Your task to perform on an android device: Open Chrome and go to the settings page Image 0: 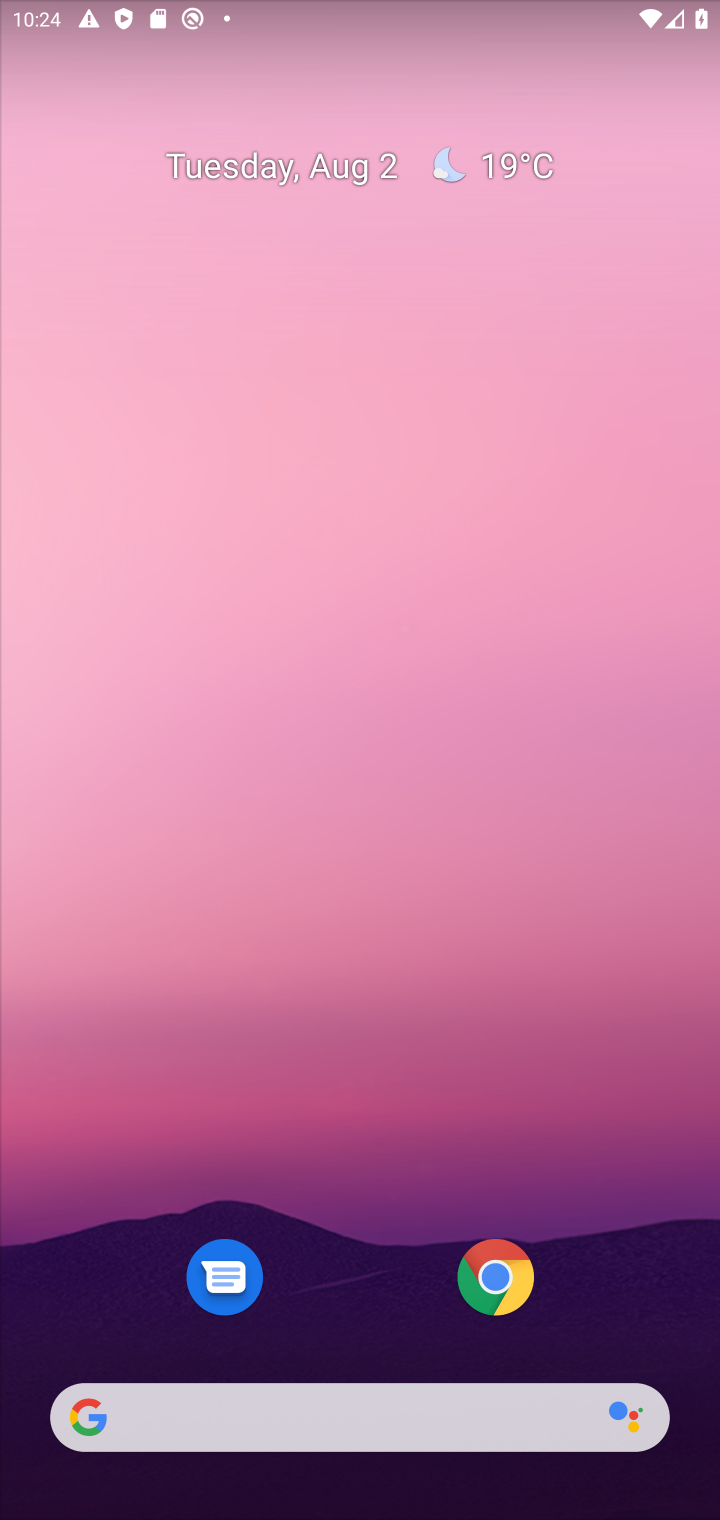
Step 0: click (485, 1296)
Your task to perform on an android device: Open Chrome and go to the settings page Image 1: 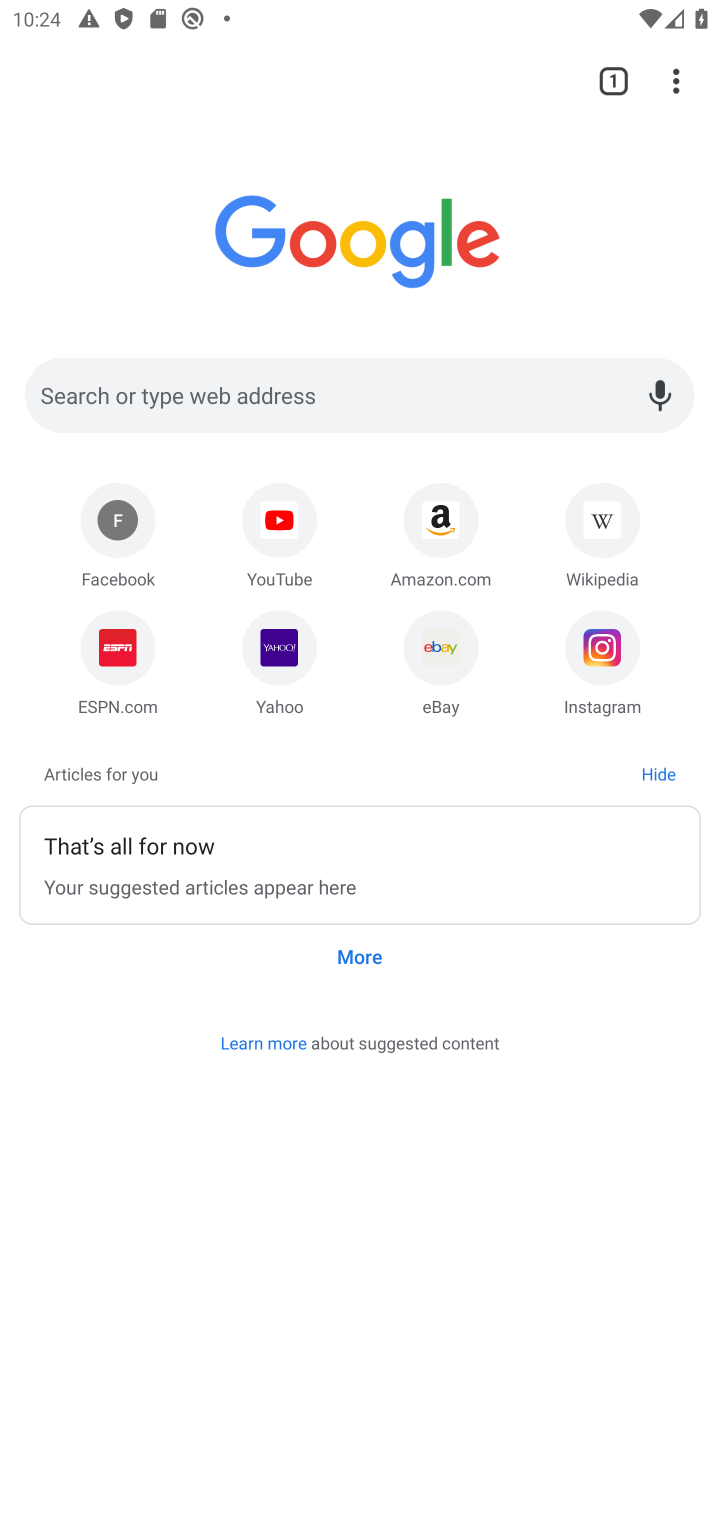
Step 1: click (674, 78)
Your task to perform on an android device: Open Chrome and go to the settings page Image 2: 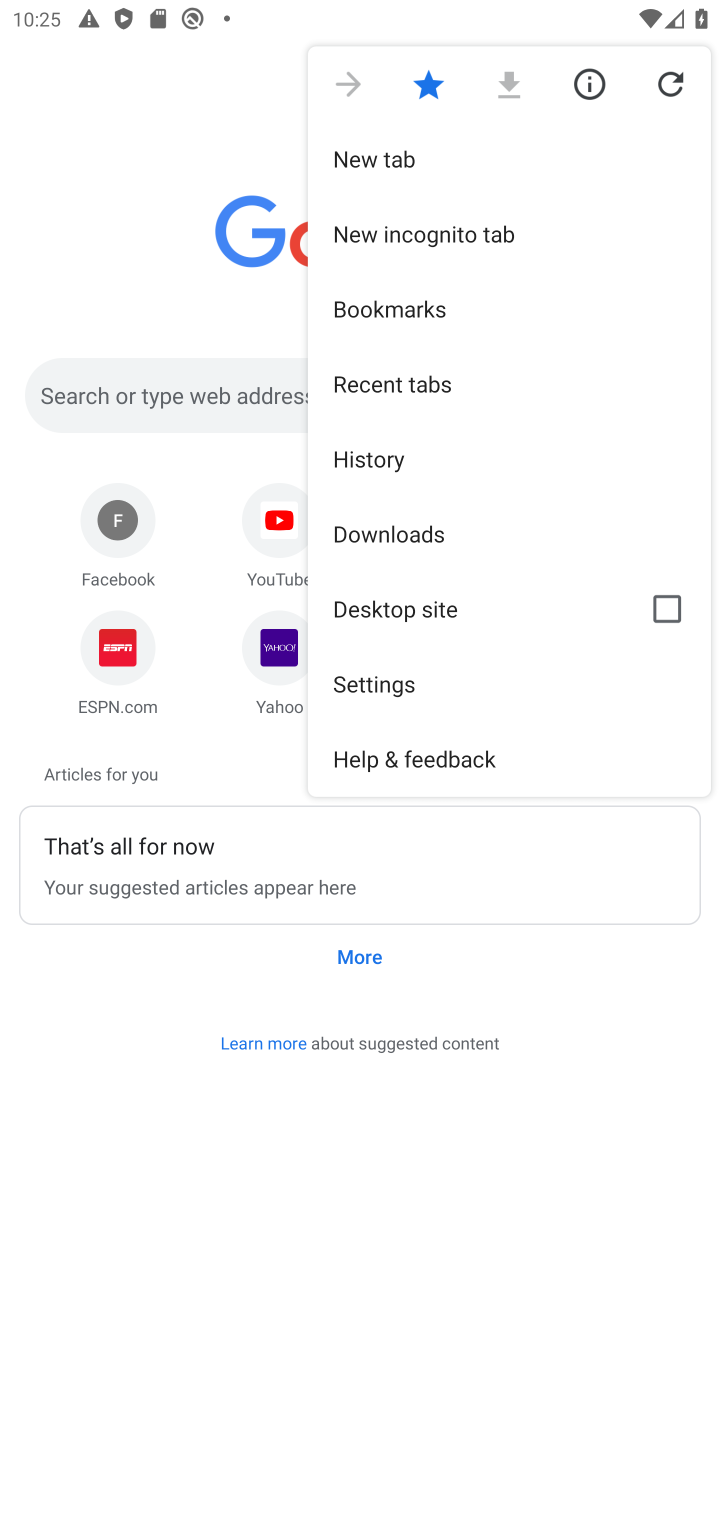
Step 2: click (379, 682)
Your task to perform on an android device: Open Chrome and go to the settings page Image 3: 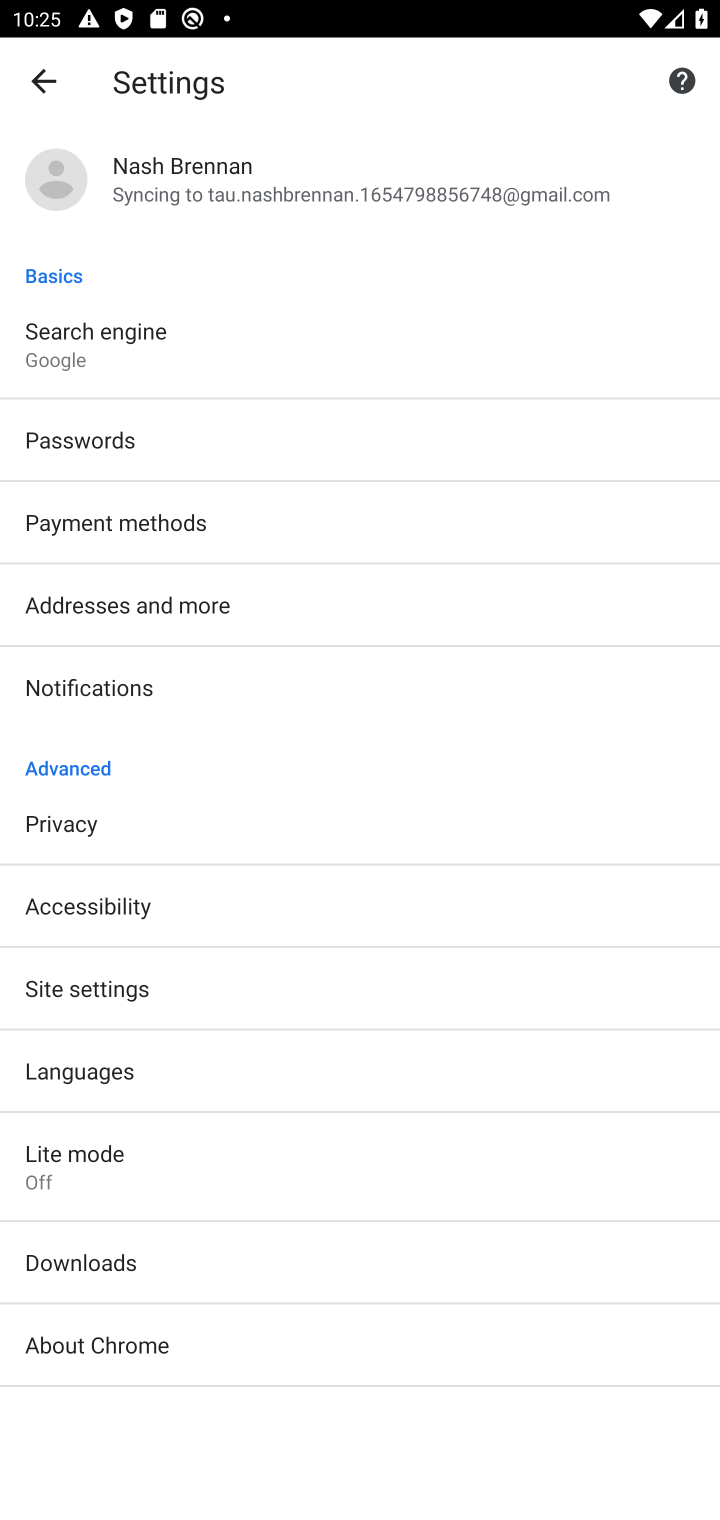
Step 3: task complete